Your task to perform on an android device: make emails show in primary in the gmail app Image 0: 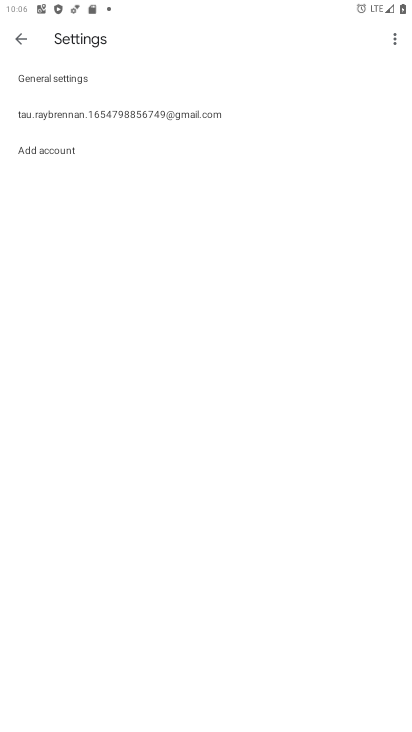
Step 0: drag from (174, 628) to (213, 349)
Your task to perform on an android device: make emails show in primary in the gmail app Image 1: 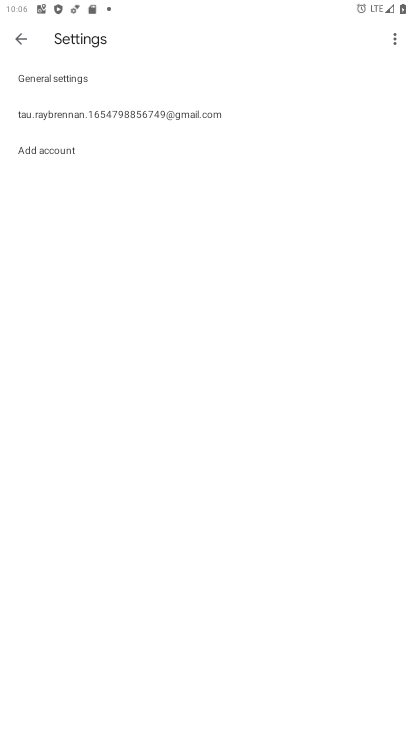
Step 1: click (246, 216)
Your task to perform on an android device: make emails show in primary in the gmail app Image 2: 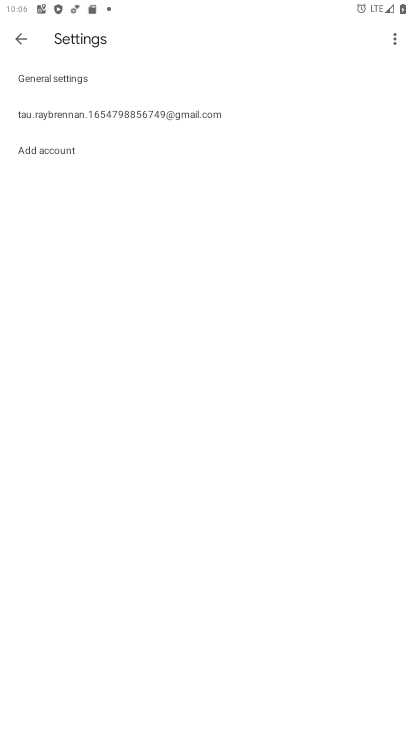
Step 2: drag from (224, 545) to (277, 358)
Your task to perform on an android device: make emails show in primary in the gmail app Image 3: 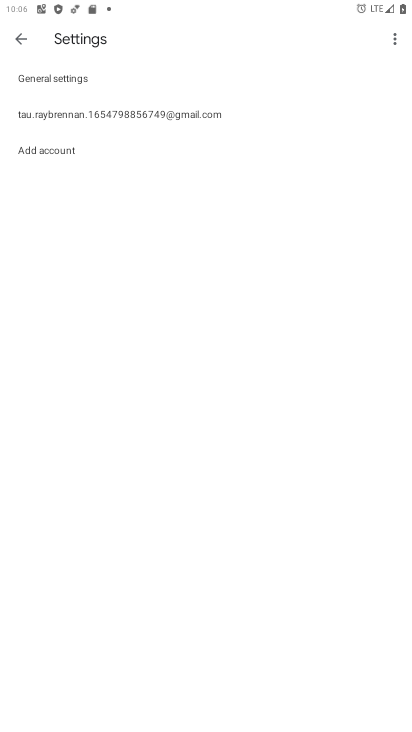
Step 3: drag from (162, 570) to (145, 317)
Your task to perform on an android device: make emails show in primary in the gmail app Image 4: 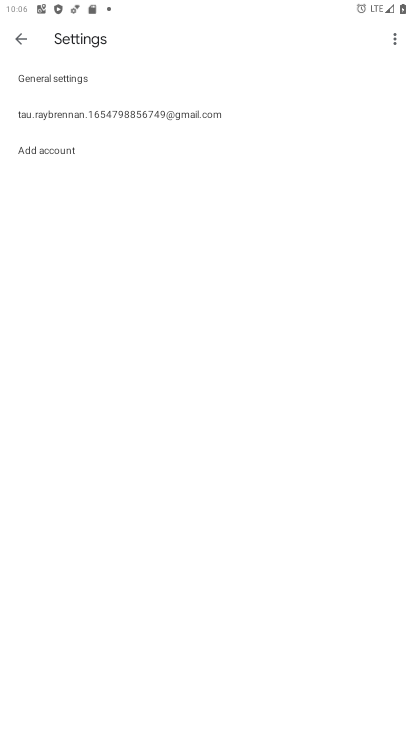
Step 4: drag from (100, 520) to (144, 227)
Your task to perform on an android device: make emails show in primary in the gmail app Image 5: 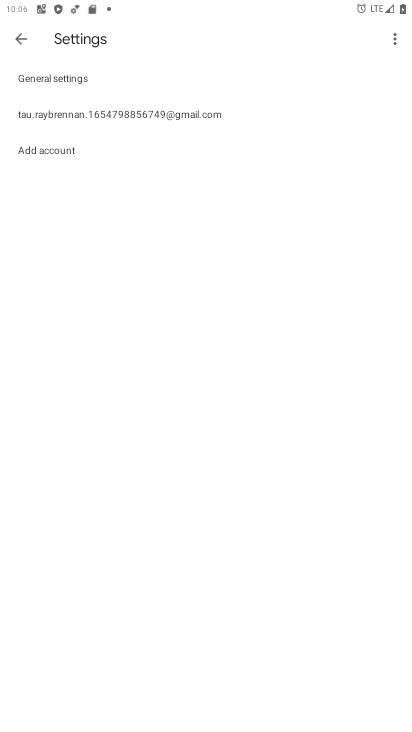
Step 5: press home button
Your task to perform on an android device: make emails show in primary in the gmail app Image 6: 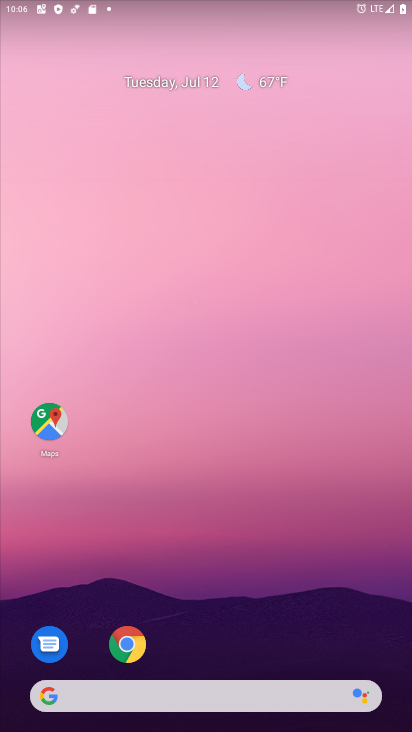
Step 6: drag from (196, 634) to (211, 241)
Your task to perform on an android device: make emails show in primary in the gmail app Image 7: 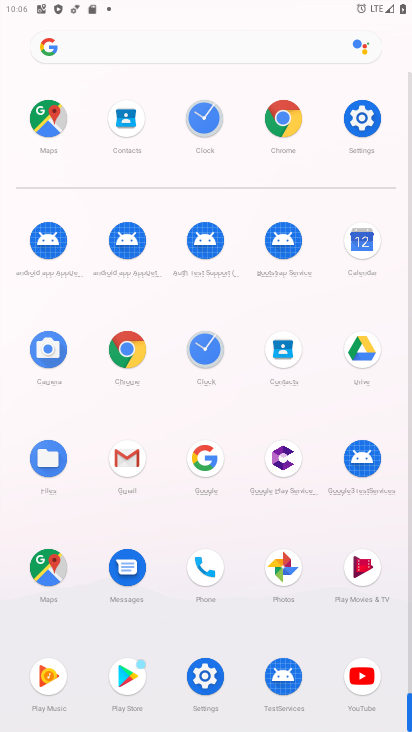
Step 7: click (132, 455)
Your task to perform on an android device: make emails show in primary in the gmail app Image 8: 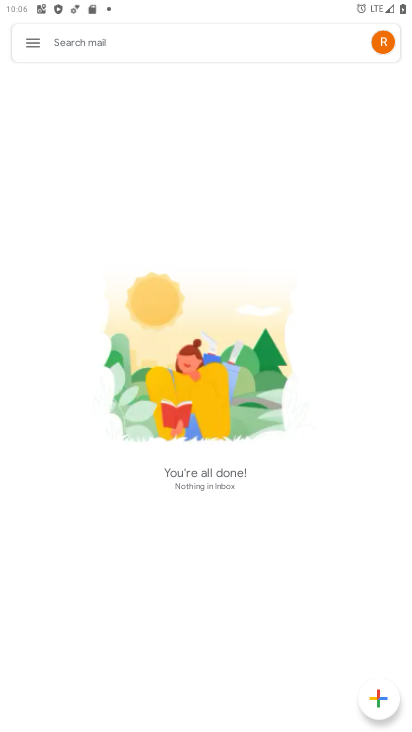
Step 8: click (23, 43)
Your task to perform on an android device: make emails show in primary in the gmail app Image 9: 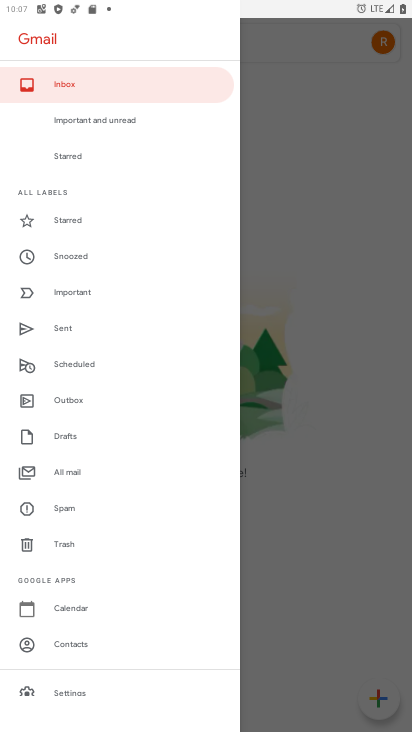
Step 9: click (57, 84)
Your task to perform on an android device: make emails show in primary in the gmail app Image 10: 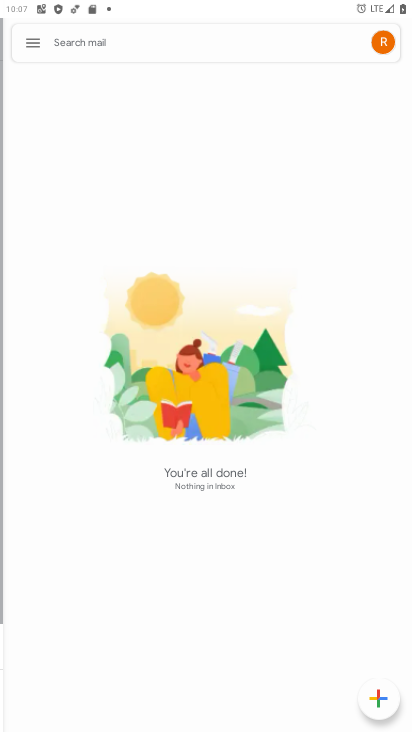
Step 10: click (356, 225)
Your task to perform on an android device: make emails show in primary in the gmail app Image 11: 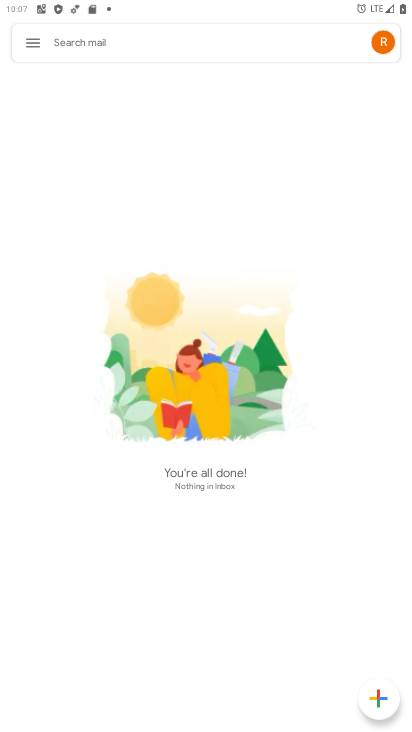
Step 11: drag from (127, 489) to (124, 399)
Your task to perform on an android device: make emails show in primary in the gmail app Image 12: 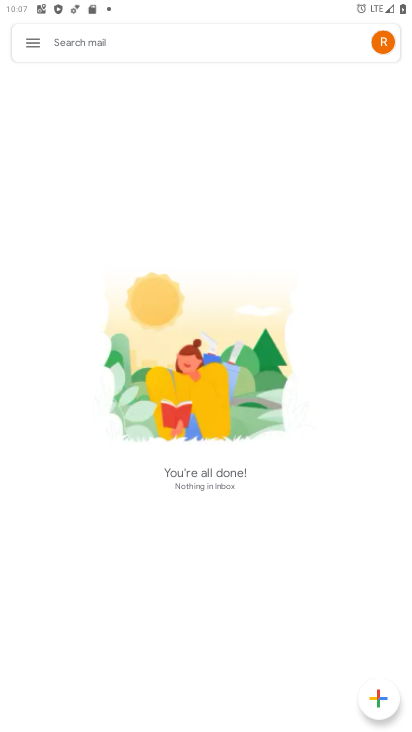
Step 12: click (216, 238)
Your task to perform on an android device: make emails show in primary in the gmail app Image 13: 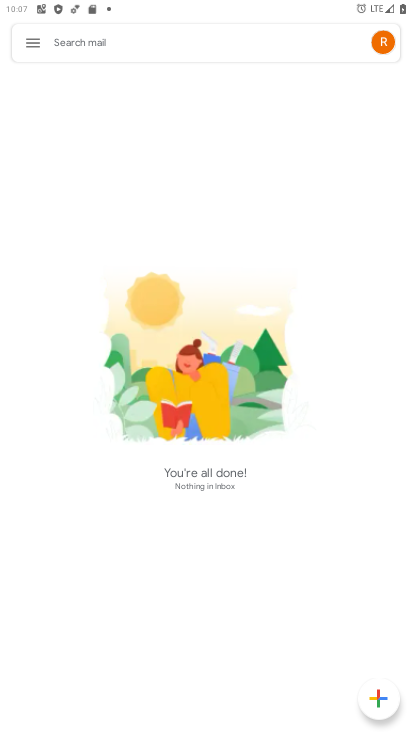
Step 13: click (260, 221)
Your task to perform on an android device: make emails show in primary in the gmail app Image 14: 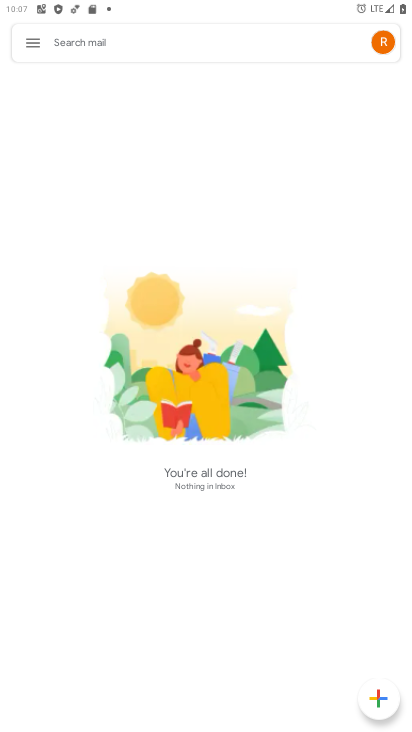
Step 14: drag from (117, 594) to (174, 381)
Your task to perform on an android device: make emails show in primary in the gmail app Image 15: 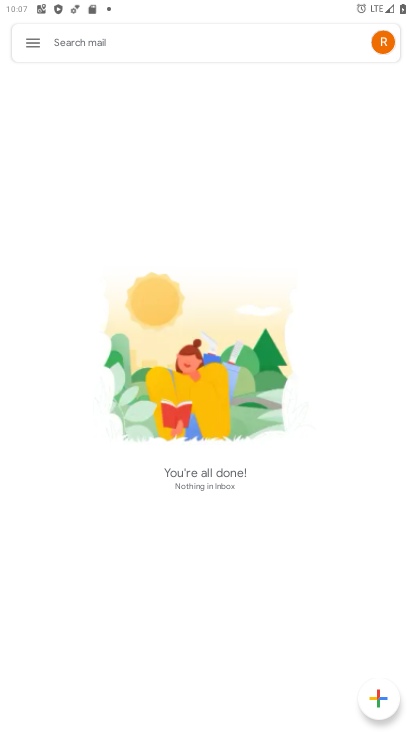
Step 15: click (246, 239)
Your task to perform on an android device: make emails show in primary in the gmail app Image 16: 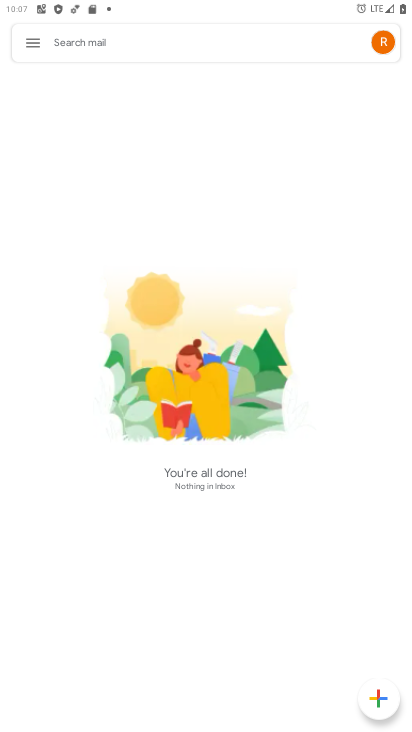
Step 16: click (246, 239)
Your task to perform on an android device: make emails show in primary in the gmail app Image 17: 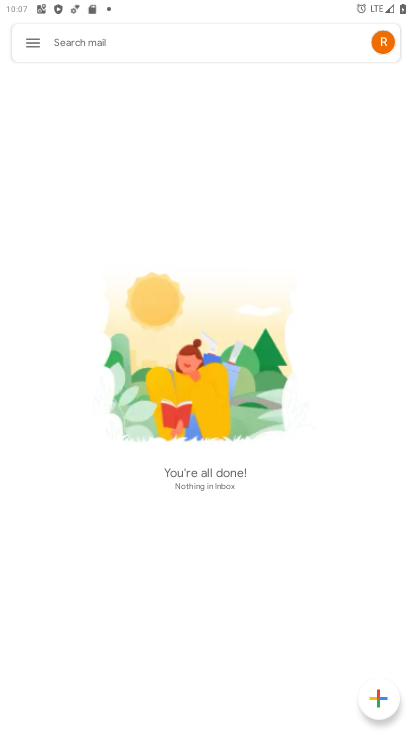
Step 17: click (235, 196)
Your task to perform on an android device: make emails show in primary in the gmail app Image 18: 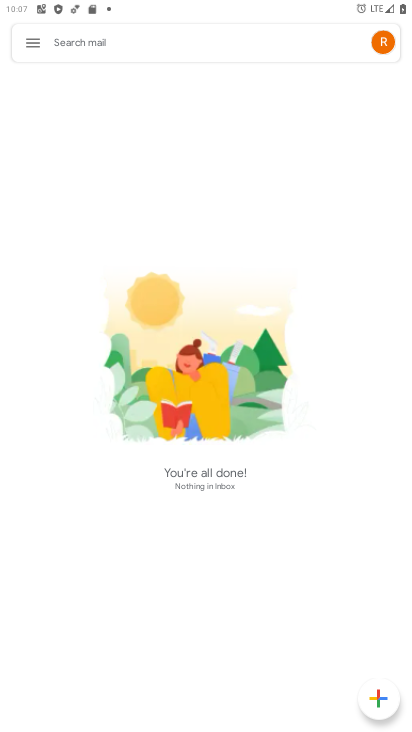
Step 18: click (235, 196)
Your task to perform on an android device: make emails show in primary in the gmail app Image 19: 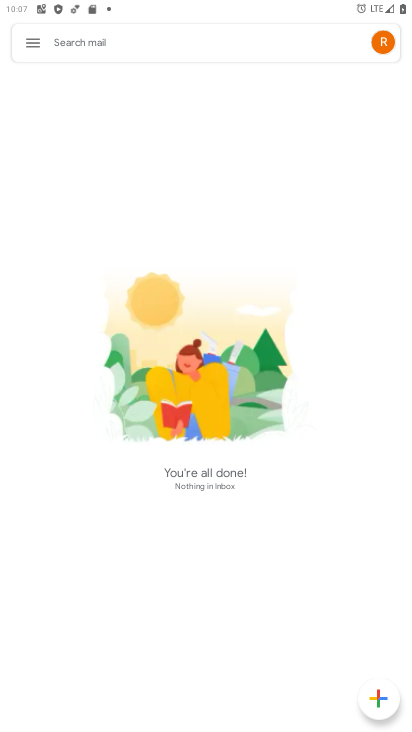
Step 19: click (199, 203)
Your task to perform on an android device: make emails show in primary in the gmail app Image 20: 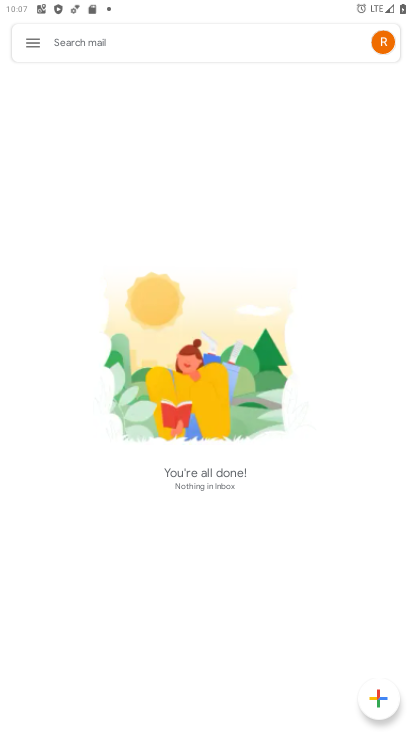
Step 20: click (220, 566)
Your task to perform on an android device: make emails show in primary in the gmail app Image 21: 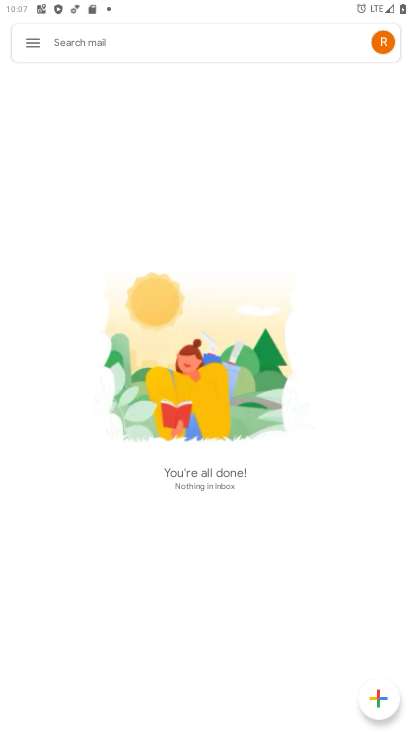
Step 21: task complete